Your task to perform on an android device: allow cookies in the chrome app Image 0: 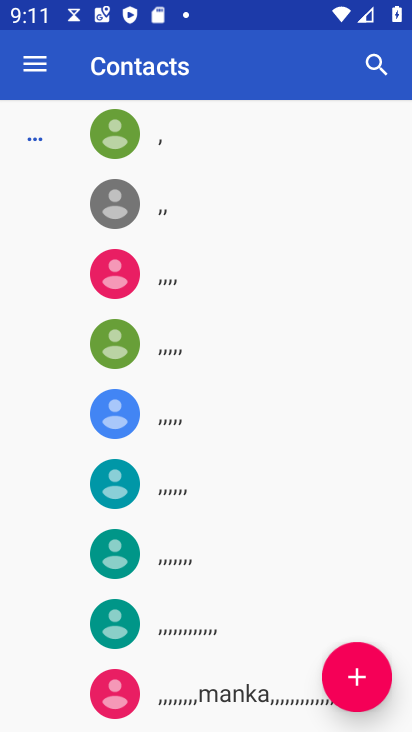
Step 0: press back button
Your task to perform on an android device: allow cookies in the chrome app Image 1: 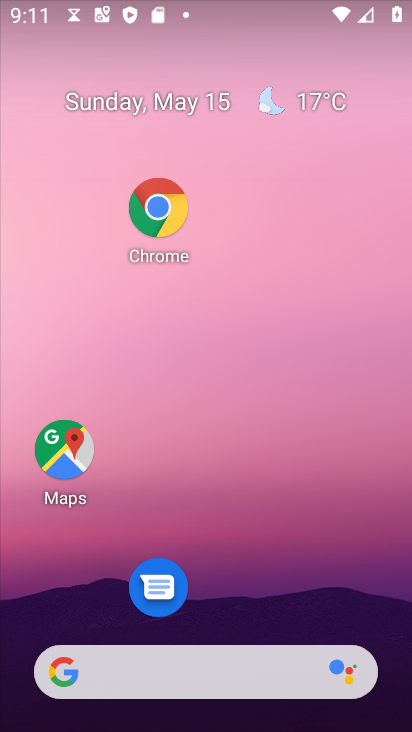
Step 1: drag from (302, 627) to (170, 10)
Your task to perform on an android device: allow cookies in the chrome app Image 2: 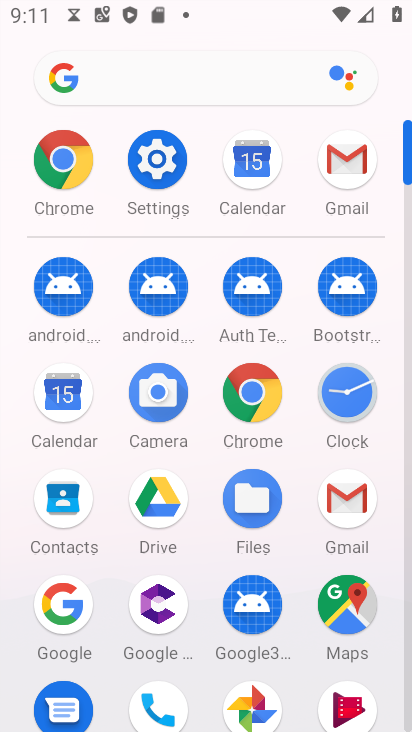
Step 2: click (252, 388)
Your task to perform on an android device: allow cookies in the chrome app Image 3: 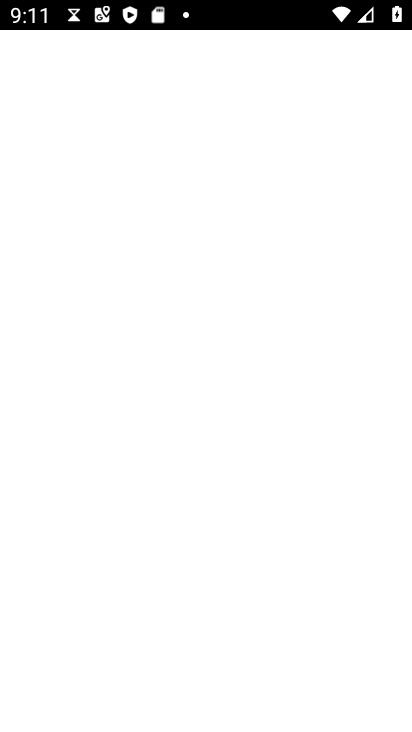
Step 3: click (256, 387)
Your task to perform on an android device: allow cookies in the chrome app Image 4: 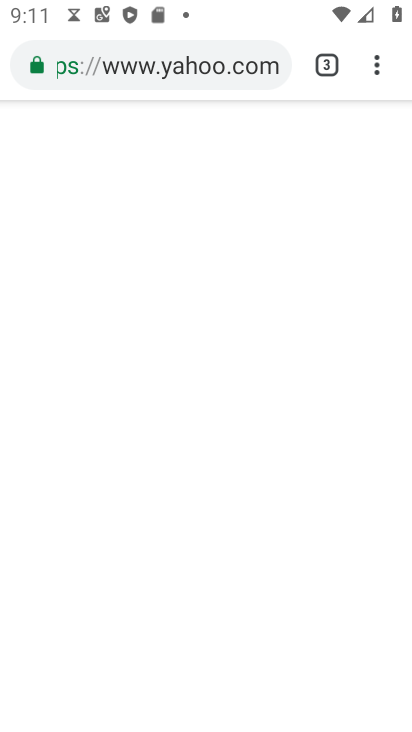
Step 4: click (369, 56)
Your task to perform on an android device: allow cookies in the chrome app Image 5: 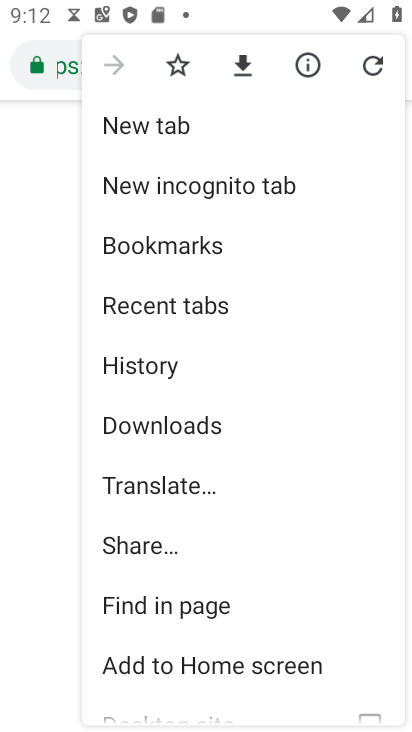
Step 5: drag from (170, 545) to (158, 60)
Your task to perform on an android device: allow cookies in the chrome app Image 6: 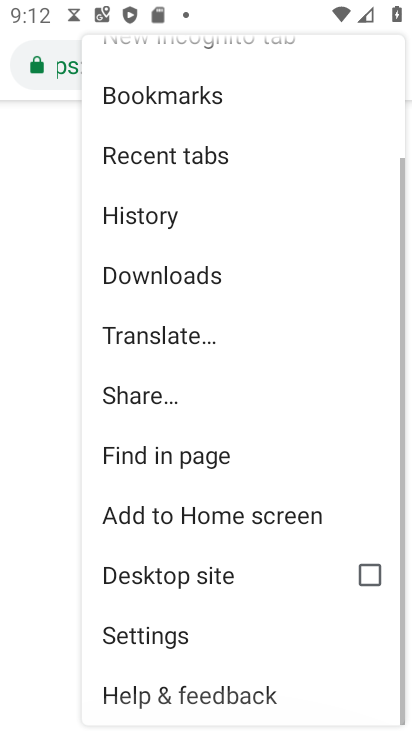
Step 6: drag from (186, 443) to (174, 9)
Your task to perform on an android device: allow cookies in the chrome app Image 7: 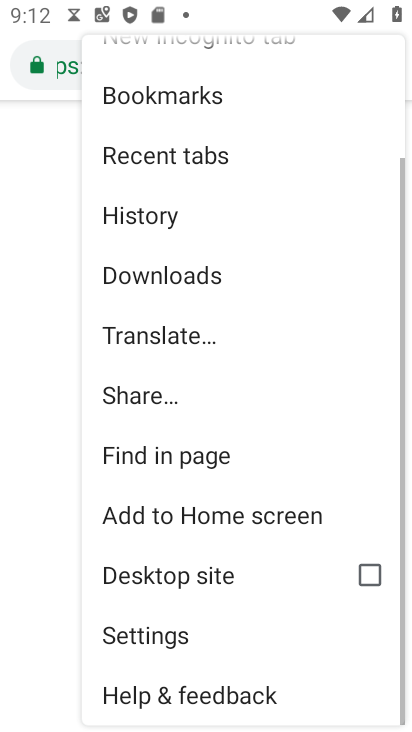
Step 7: click (143, 639)
Your task to perform on an android device: allow cookies in the chrome app Image 8: 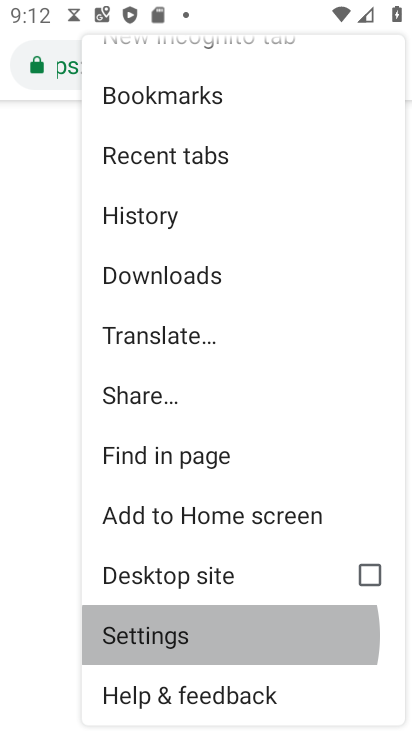
Step 8: click (142, 637)
Your task to perform on an android device: allow cookies in the chrome app Image 9: 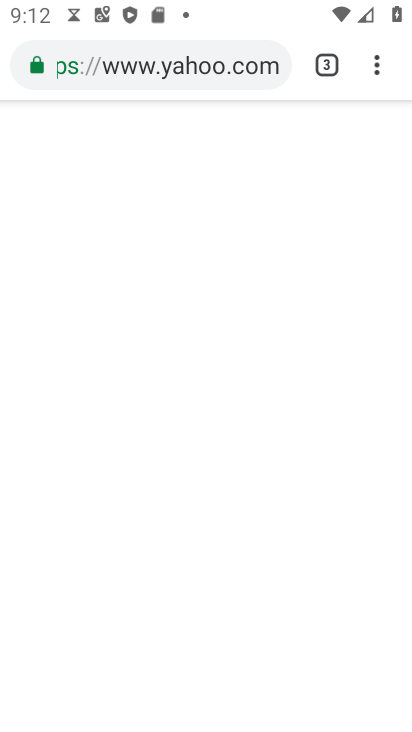
Step 9: click (142, 637)
Your task to perform on an android device: allow cookies in the chrome app Image 10: 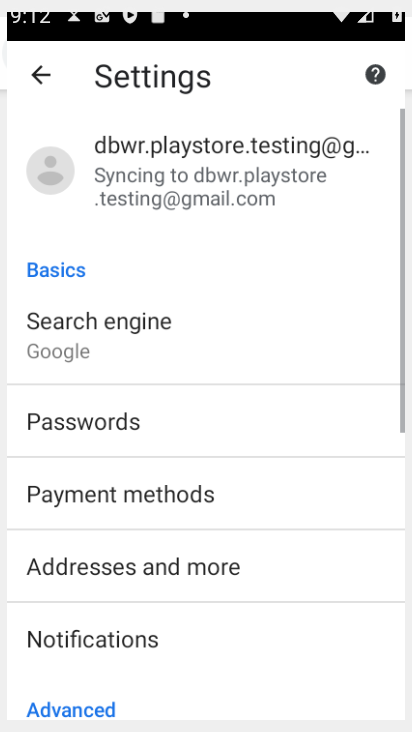
Step 10: click (142, 637)
Your task to perform on an android device: allow cookies in the chrome app Image 11: 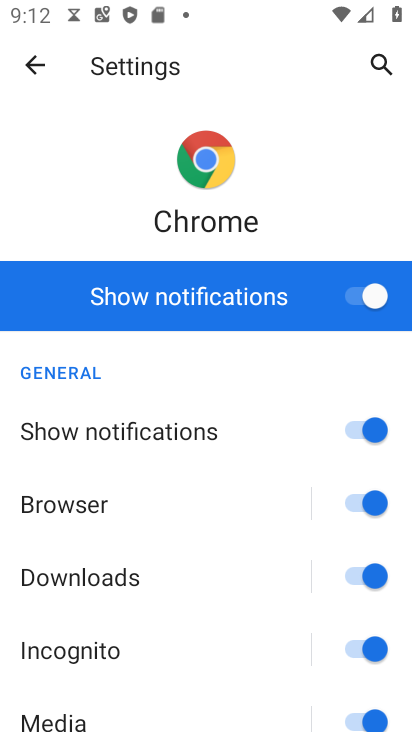
Step 11: click (34, 72)
Your task to perform on an android device: allow cookies in the chrome app Image 12: 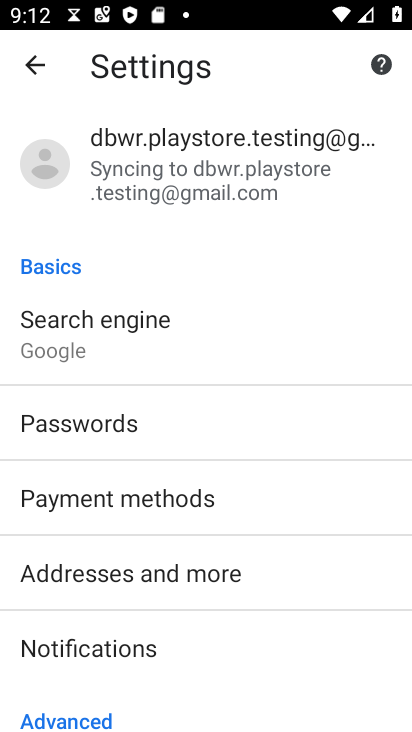
Step 12: drag from (140, 534) to (63, 155)
Your task to perform on an android device: allow cookies in the chrome app Image 13: 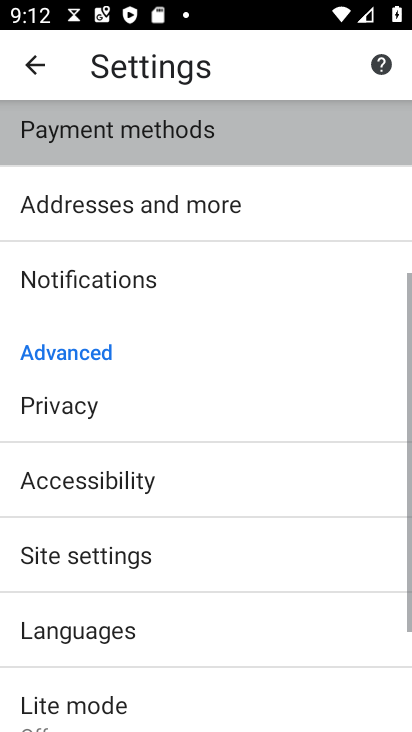
Step 13: drag from (185, 450) to (169, 57)
Your task to perform on an android device: allow cookies in the chrome app Image 14: 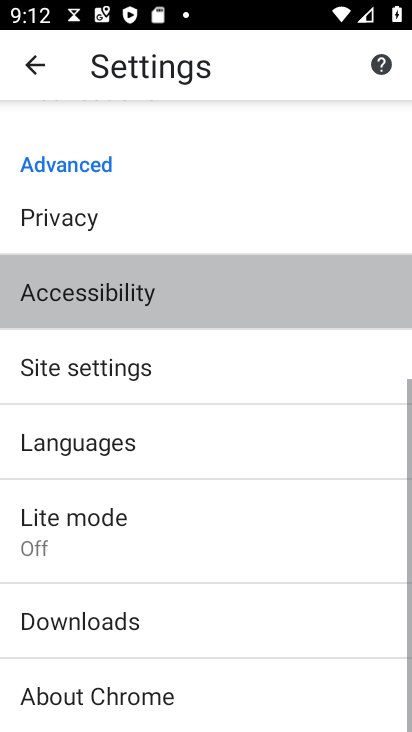
Step 14: drag from (183, 519) to (235, 43)
Your task to perform on an android device: allow cookies in the chrome app Image 15: 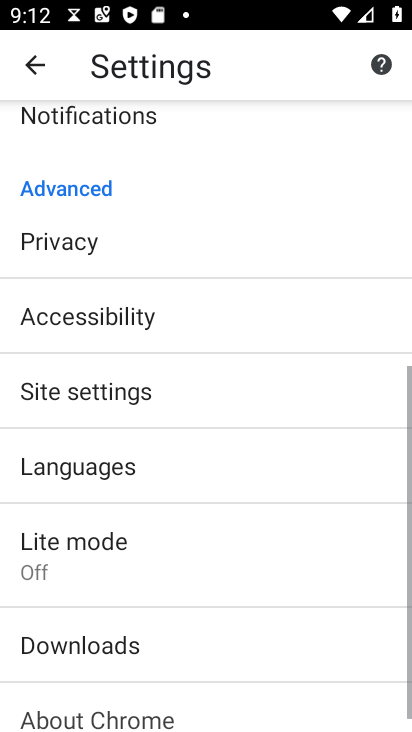
Step 15: drag from (182, 375) to (124, 0)
Your task to perform on an android device: allow cookies in the chrome app Image 16: 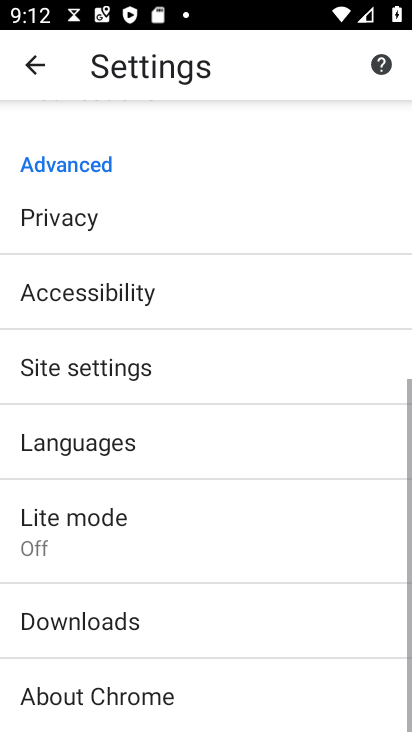
Step 16: click (77, 374)
Your task to perform on an android device: allow cookies in the chrome app Image 17: 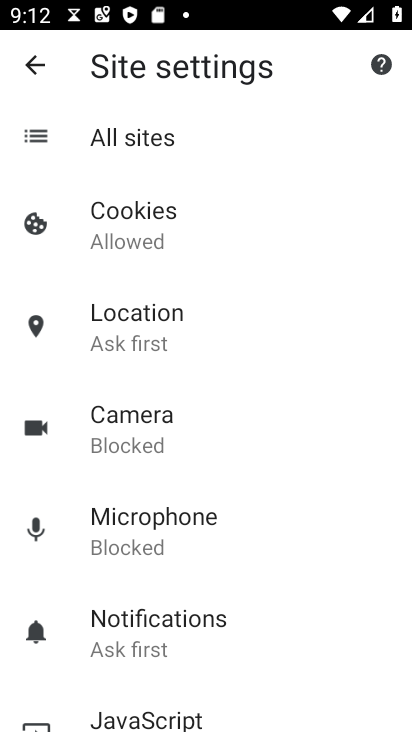
Step 17: click (148, 214)
Your task to perform on an android device: allow cookies in the chrome app Image 18: 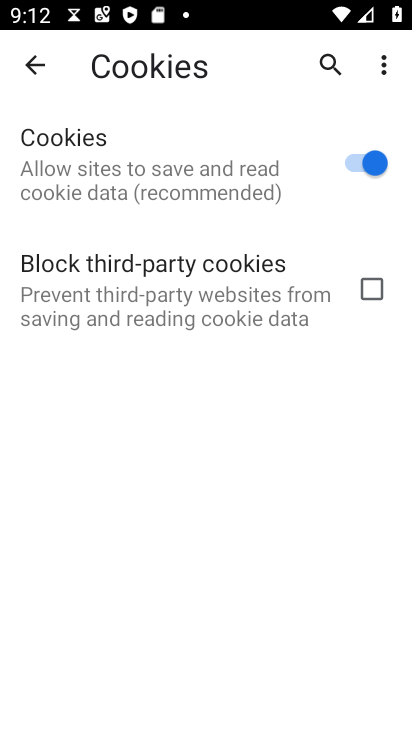
Step 18: task complete